Your task to perform on an android device: check battery use Image 0: 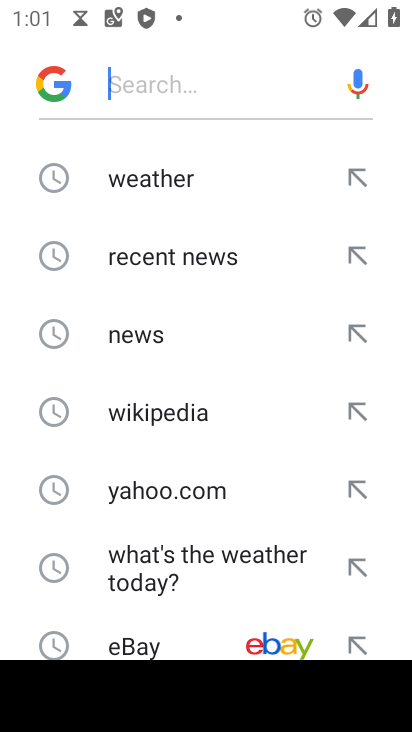
Step 0: press home button
Your task to perform on an android device: check battery use Image 1: 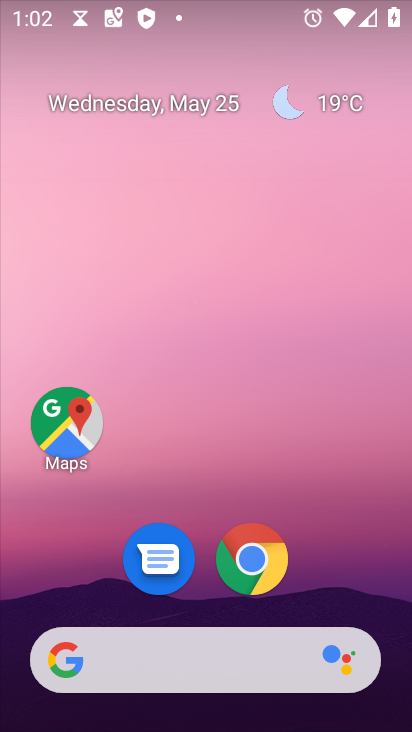
Step 1: drag from (326, 516) to (302, 8)
Your task to perform on an android device: check battery use Image 2: 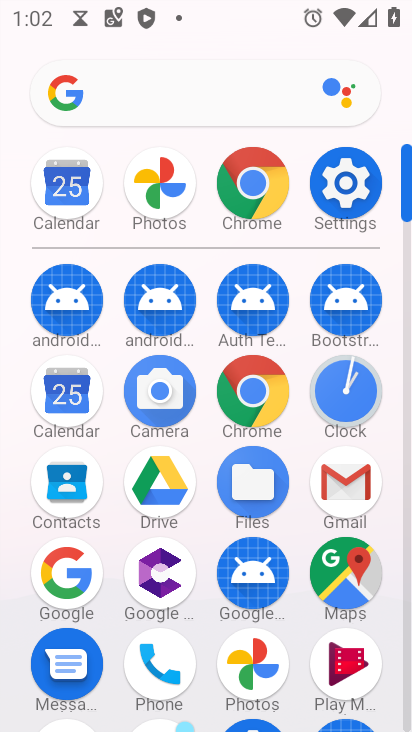
Step 2: click (354, 205)
Your task to perform on an android device: check battery use Image 3: 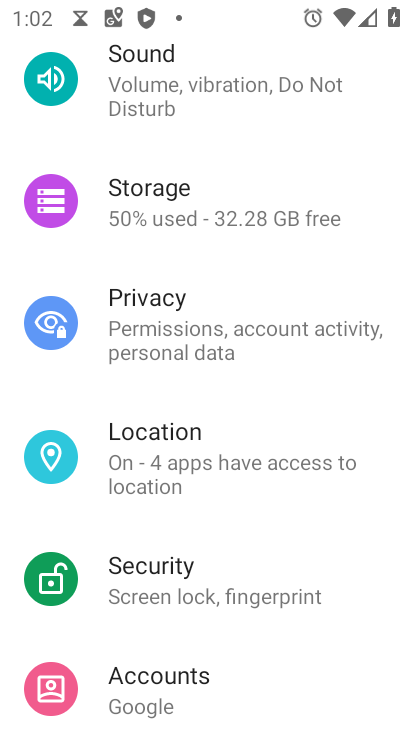
Step 3: drag from (263, 212) to (252, 718)
Your task to perform on an android device: check battery use Image 4: 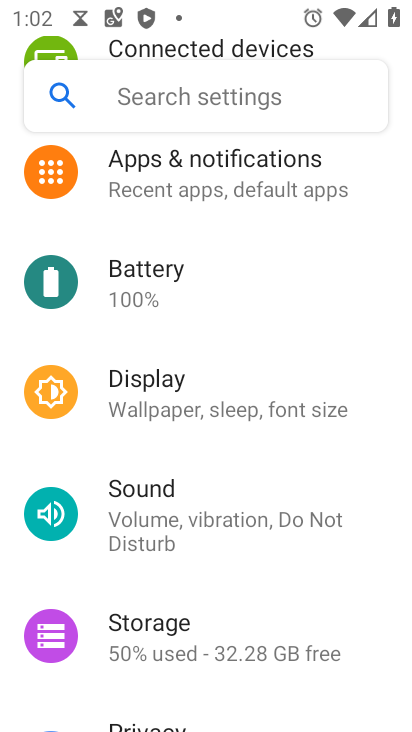
Step 4: click (159, 292)
Your task to perform on an android device: check battery use Image 5: 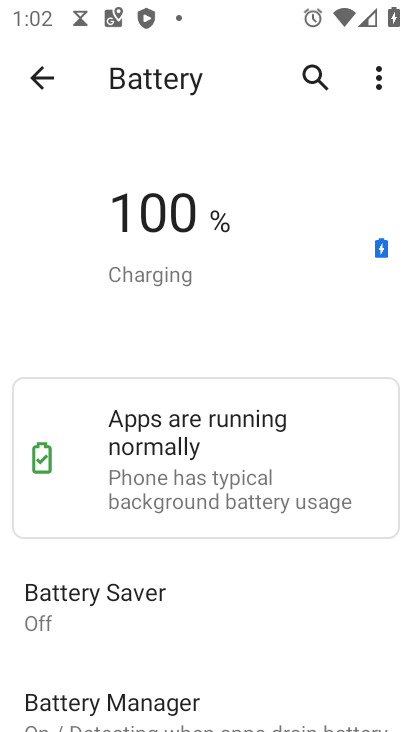
Step 5: task complete